Your task to perform on an android device: Open Google Image 0: 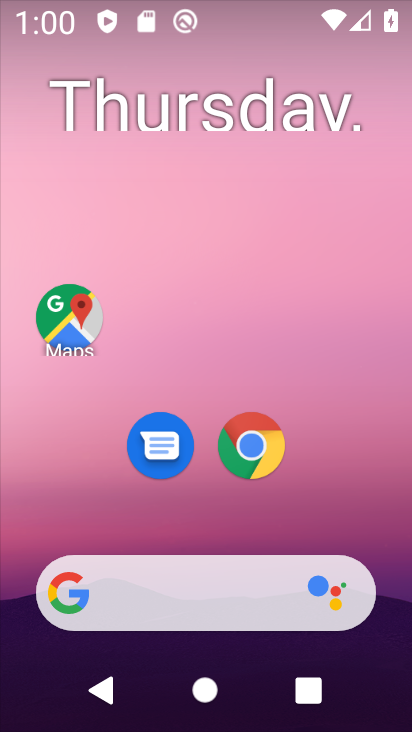
Step 0: click (79, 600)
Your task to perform on an android device: Open Google Image 1: 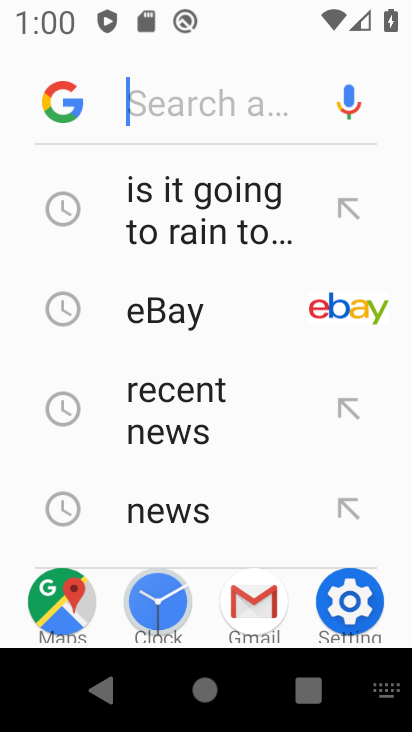
Step 1: task complete